Your task to perform on an android device: Open Maps and search for coffee Image 0: 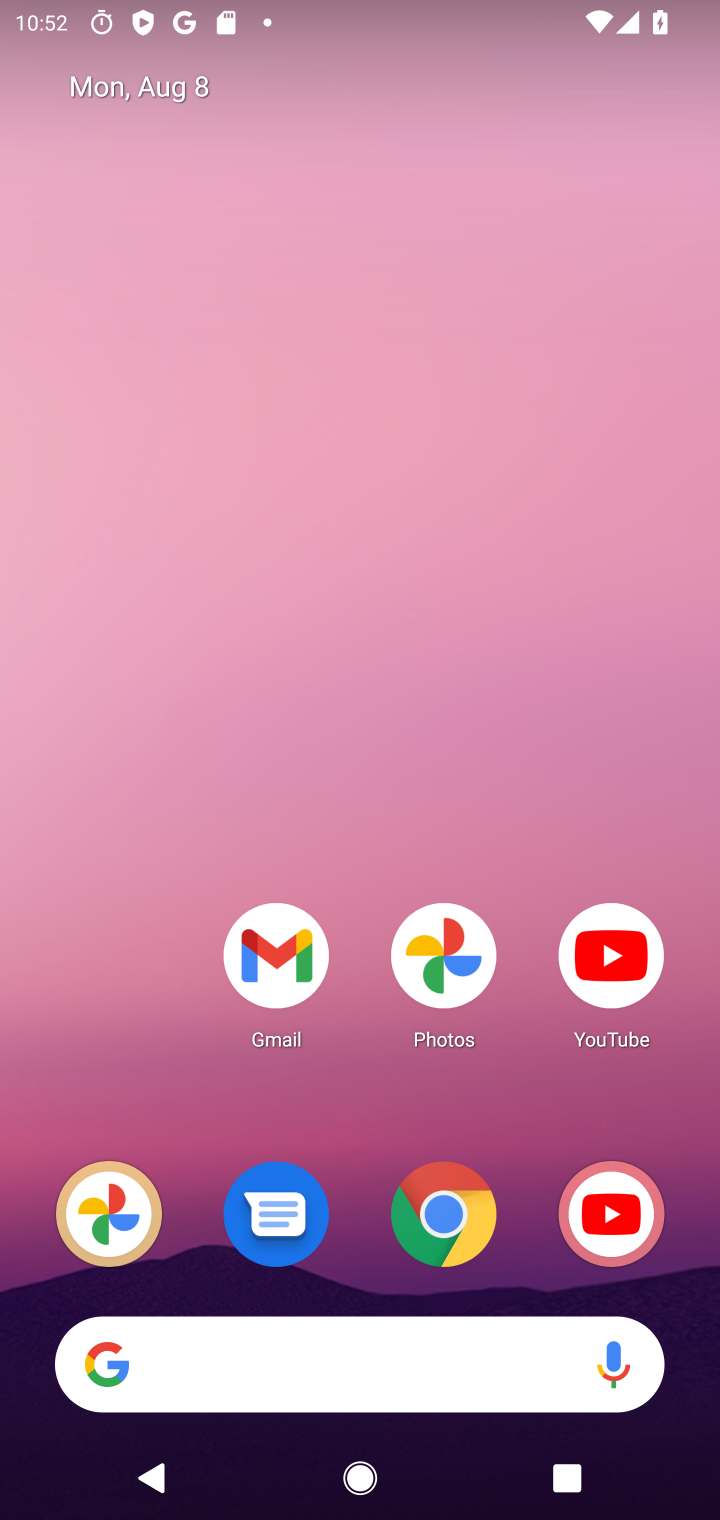
Step 0: click (437, 671)
Your task to perform on an android device: Open Maps and search for coffee Image 1: 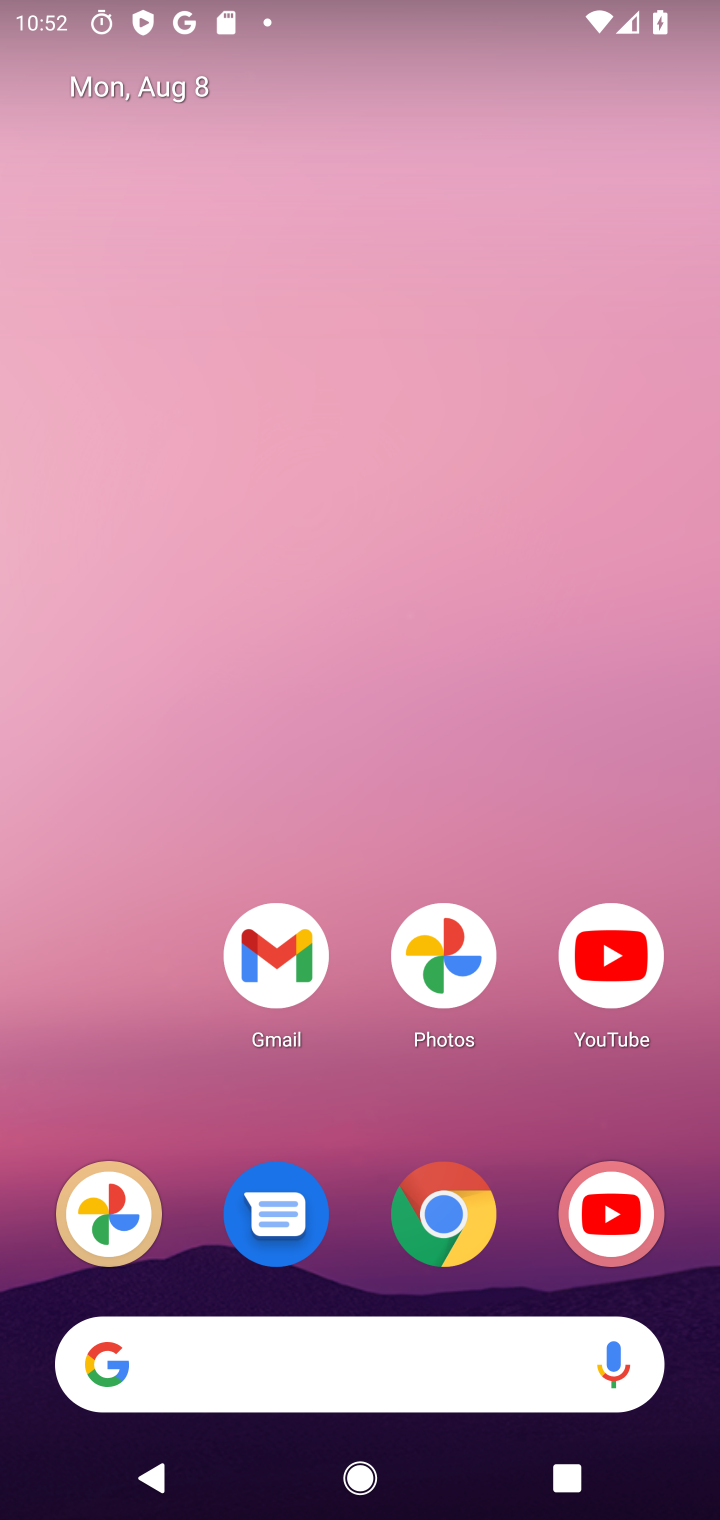
Step 1: drag from (282, 1075) to (364, 407)
Your task to perform on an android device: Open Maps and search for coffee Image 2: 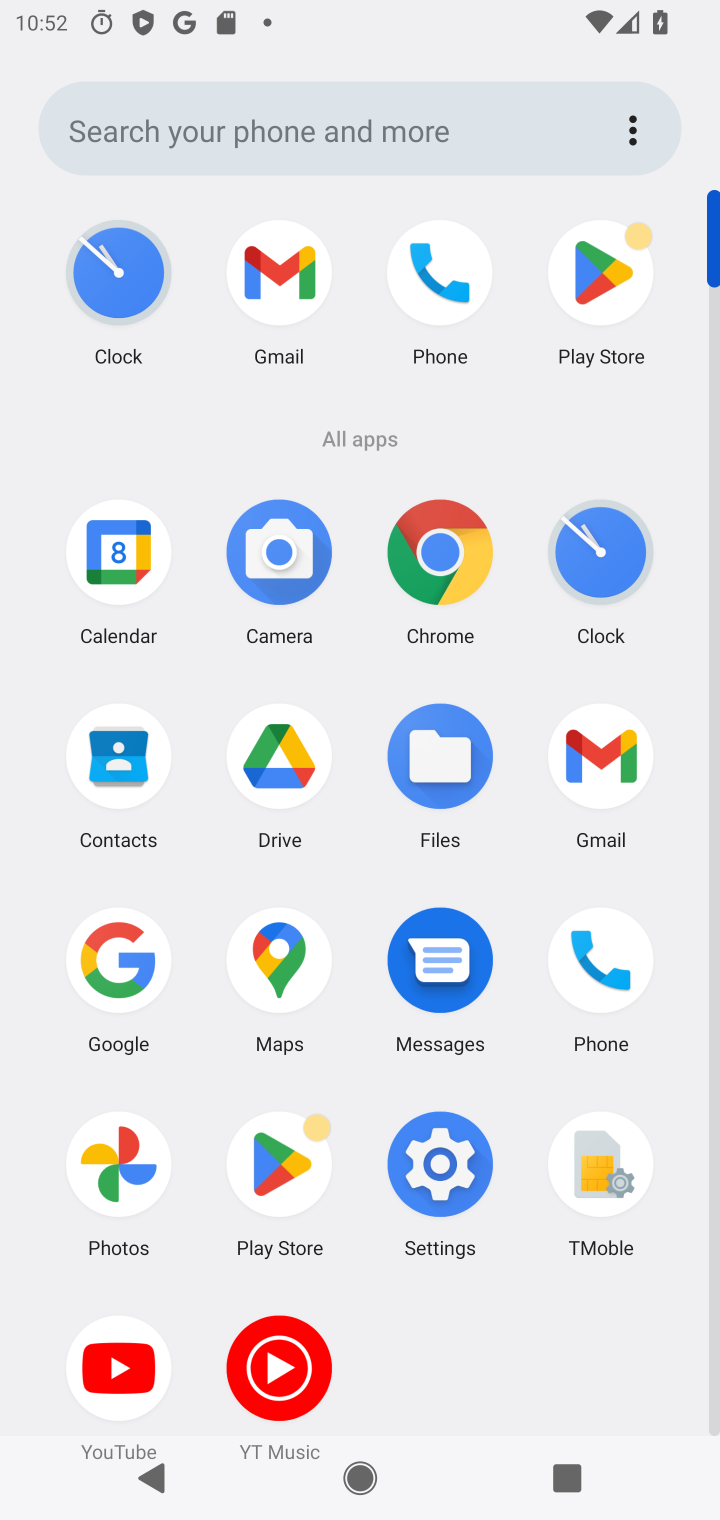
Step 2: click (266, 965)
Your task to perform on an android device: Open Maps and search for coffee Image 3: 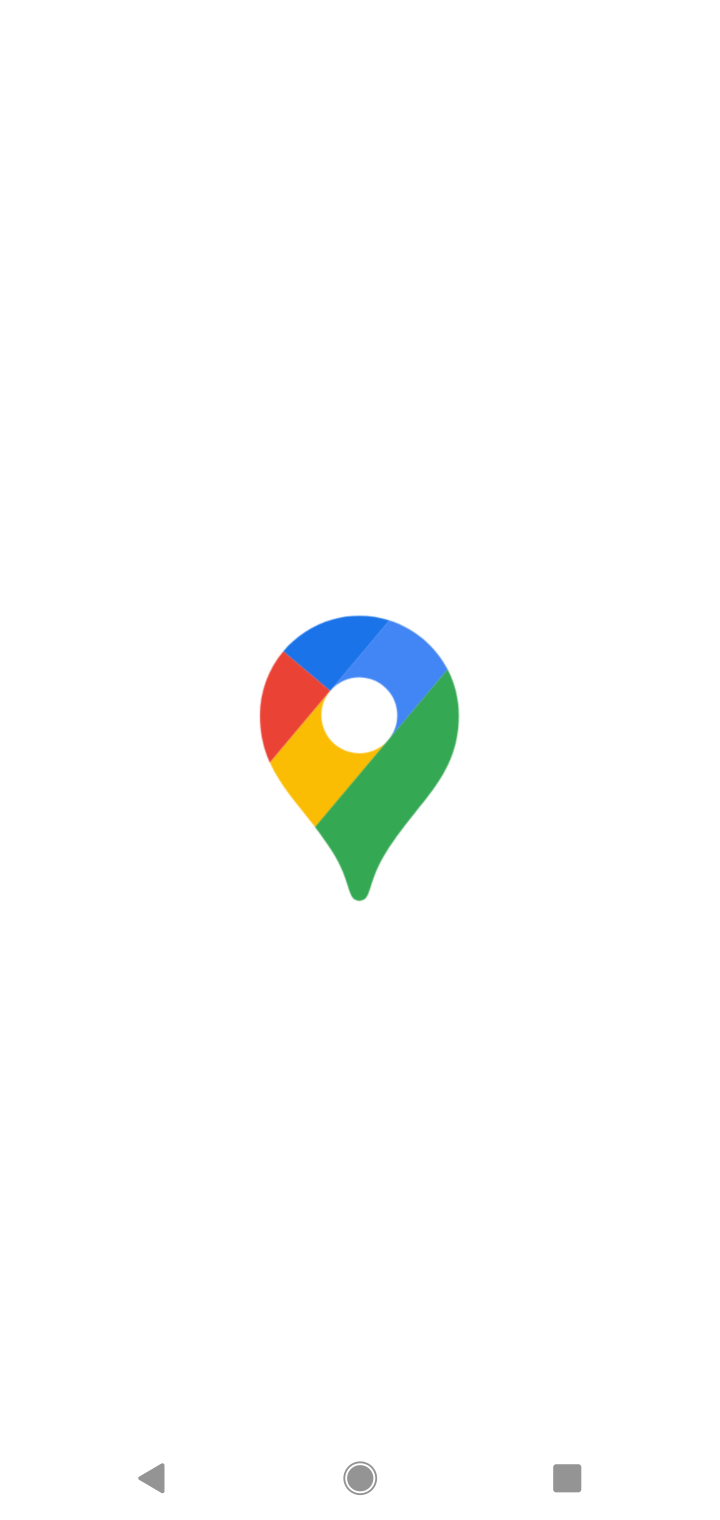
Step 3: task complete